Your task to perform on an android device: turn off data saver in the chrome app Image 0: 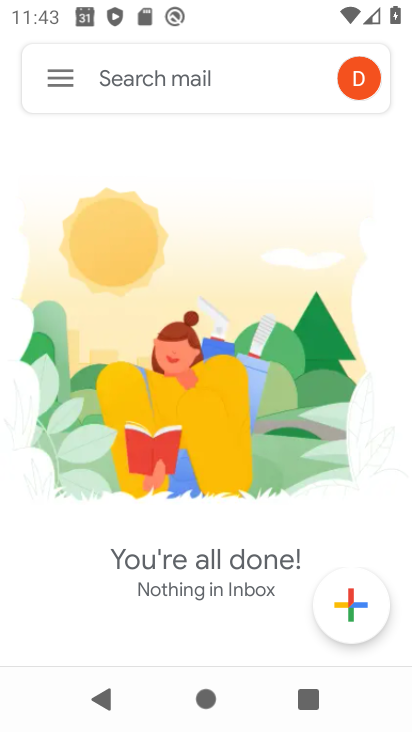
Step 0: press home button
Your task to perform on an android device: turn off data saver in the chrome app Image 1: 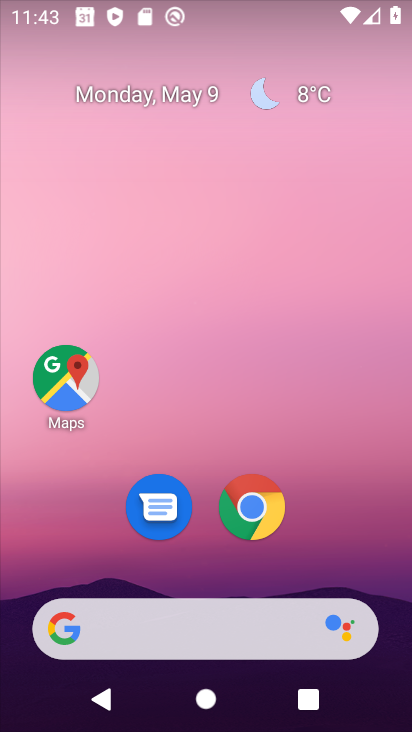
Step 1: click (246, 498)
Your task to perform on an android device: turn off data saver in the chrome app Image 2: 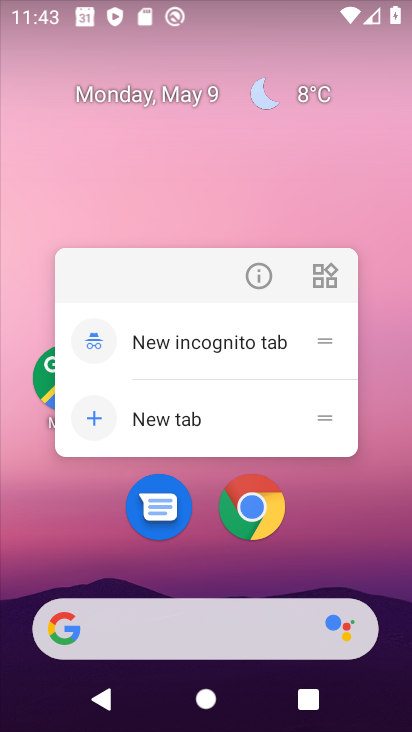
Step 2: click (245, 497)
Your task to perform on an android device: turn off data saver in the chrome app Image 3: 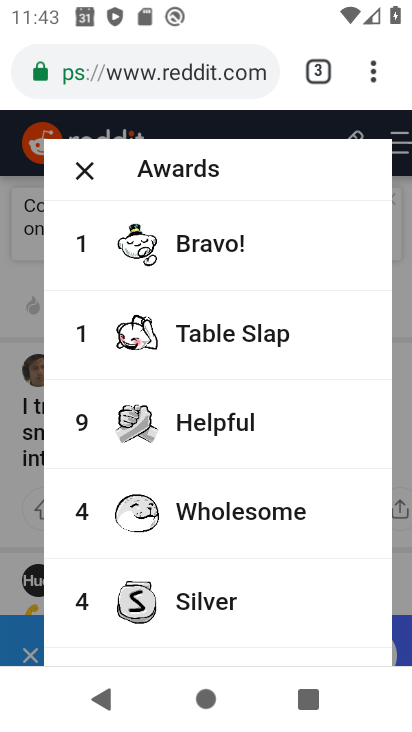
Step 3: click (373, 73)
Your task to perform on an android device: turn off data saver in the chrome app Image 4: 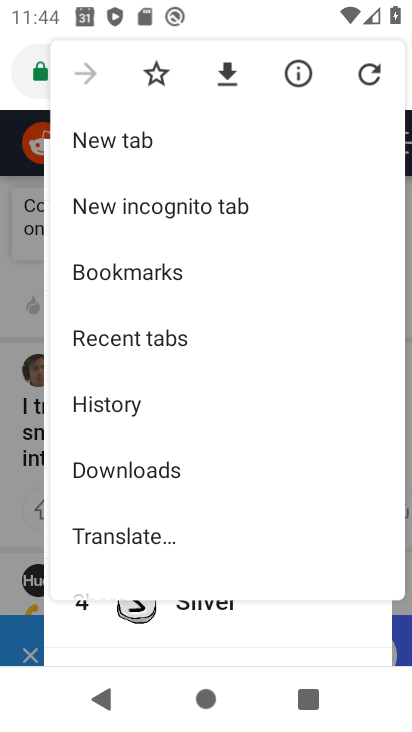
Step 4: drag from (226, 526) to (208, 227)
Your task to perform on an android device: turn off data saver in the chrome app Image 5: 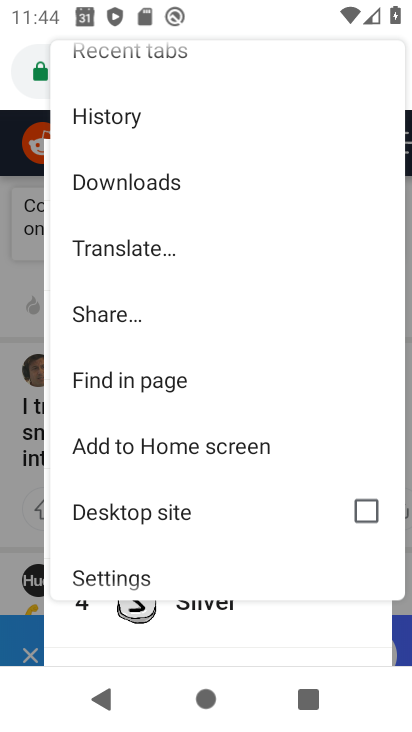
Step 5: drag from (181, 552) to (187, 316)
Your task to perform on an android device: turn off data saver in the chrome app Image 6: 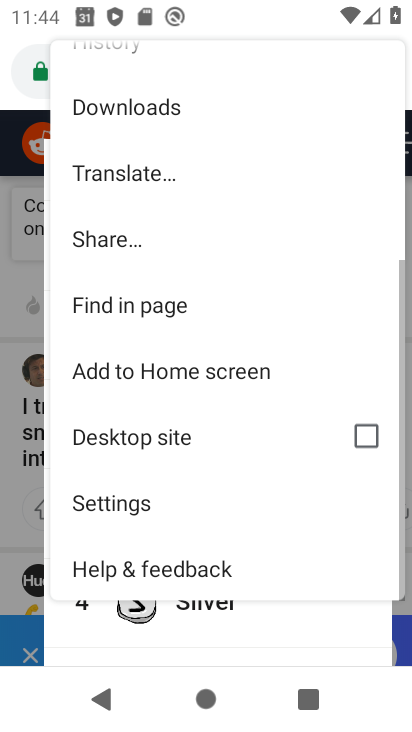
Step 6: click (153, 505)
Your task to perform on an android device: turn off data saver in the chrome app Image 7: 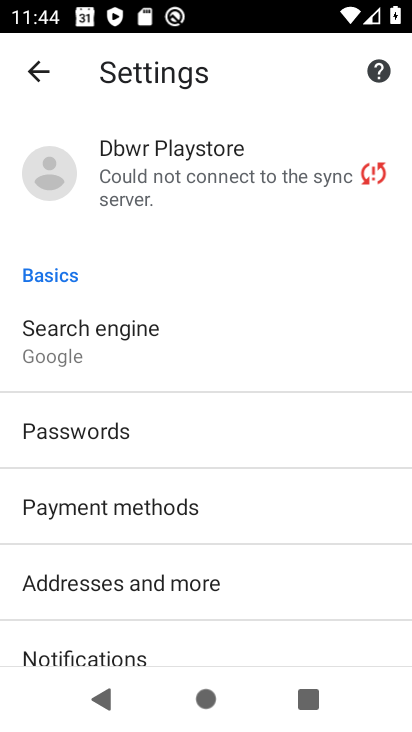
Step 7: drag from (210, 609) to (208, 247)
Your task to perform on an android device: turn off data saver in the chrome app Image 8: 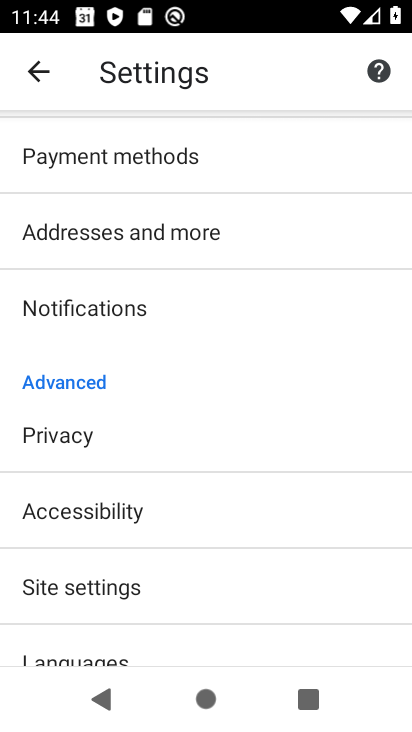
Step 8: drag from (156, 561) to (168, 327)
Your task to perform on an android device: turn off data saver in the chrome app Image 9: 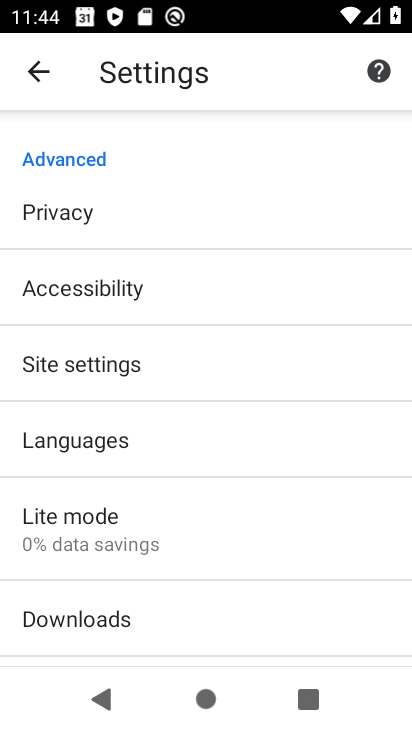
Step 9: click (125, 544)
Your task to perform on an android device: turn off data saver in the chrome app Image 10: 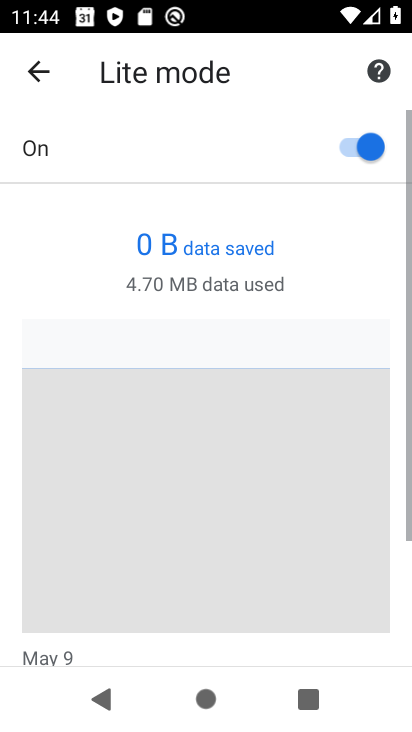
Step 10: click (346, 141)
Your task to perform on an android device: turn off data saver in the chrome app Image 11: 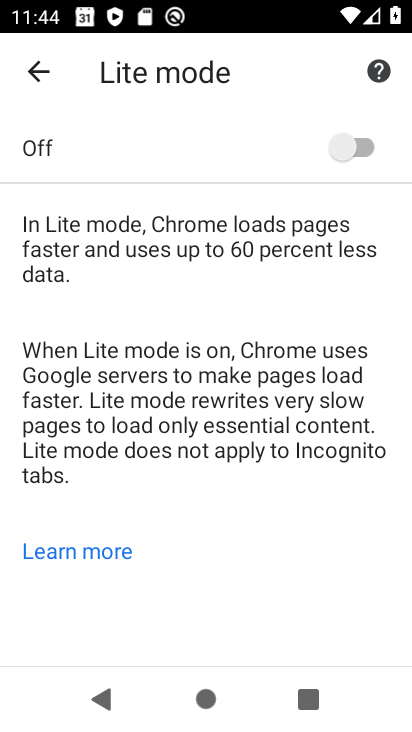
Step 11: task complete